Your task to perform on an android device: Show the shopping cart on newegg. Add "dell xps" to the cart on newegg, then select checkout. Image 0: 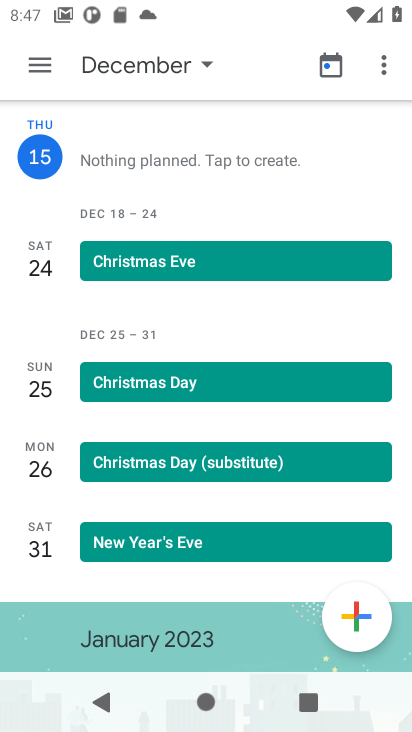
Step 0: press home button
Your task to perform on an android device: Show the shopping cart on newegg. Add "dell xps" to the cart on newegg, then select checkout. Image 1: 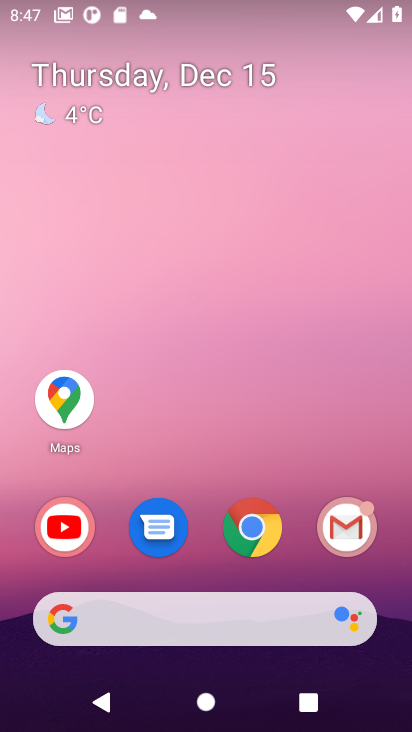
Step 1: click (256, 521)
Your task to perform on an android device: Show the shopping cart on newegg. Add "dell xps" to the cart on newegg, then select checkout. Image 2: 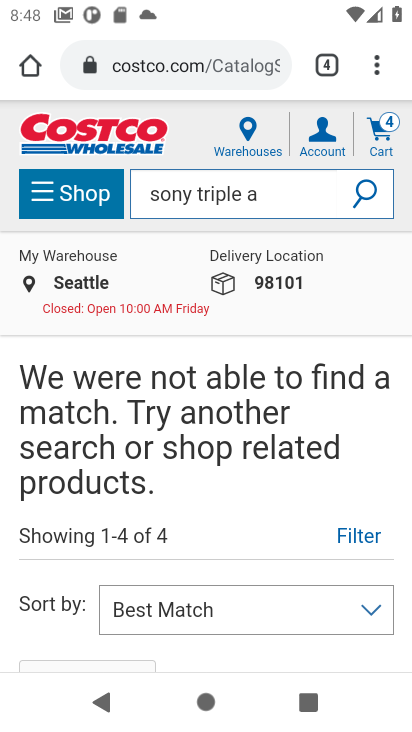
Step 2: click (170, 55)
Your task to perform on an android device: Show the shopping cart on newegg. Add "dell xps" to the cart on newegg, then select checkout. Image 3: 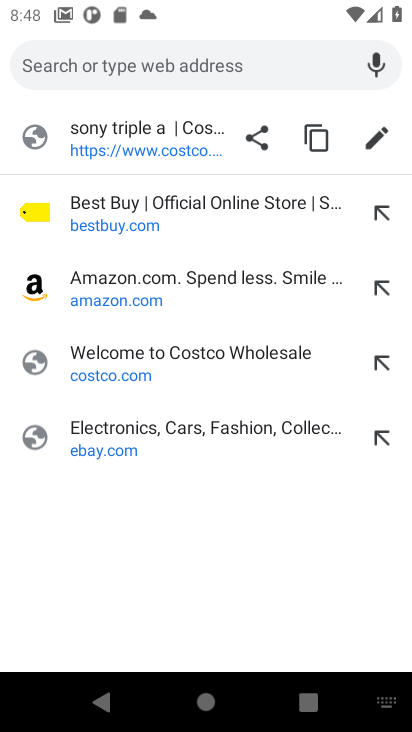
Step 3: type "newegg"
Your task to perform on an android device: Show the shopping cart on newegg. Add "dell xps" to the cart on newegg, then select checkout. Image 4: 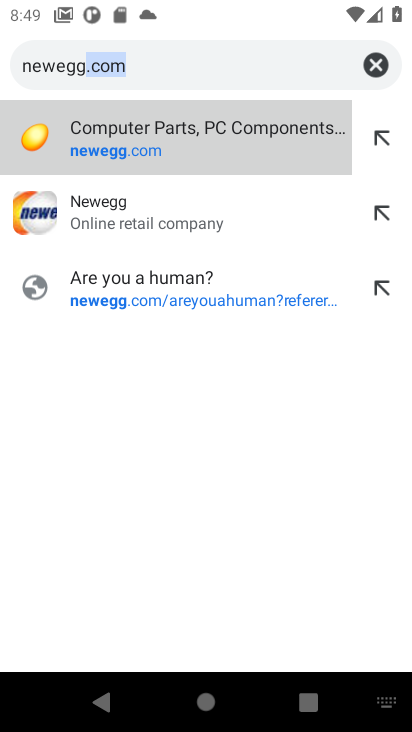
Step 4: click (146, 137)
Your task to perform on an android device: Show the shopping cart on newegg. Add "dell xps" to the cart on newegg, then select checkout. Image 5: 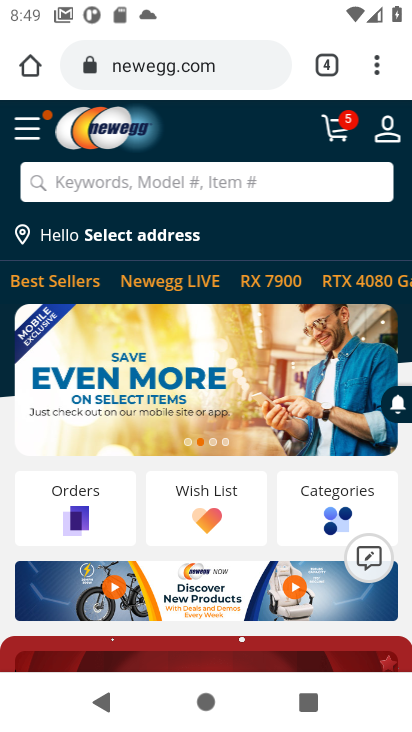
Step 5: click (107, 188)
Your task to perform on an android device: Show the shopping cart on newegg. Add "dell xps" to the cart on newegg, then select checkout. Image 6: 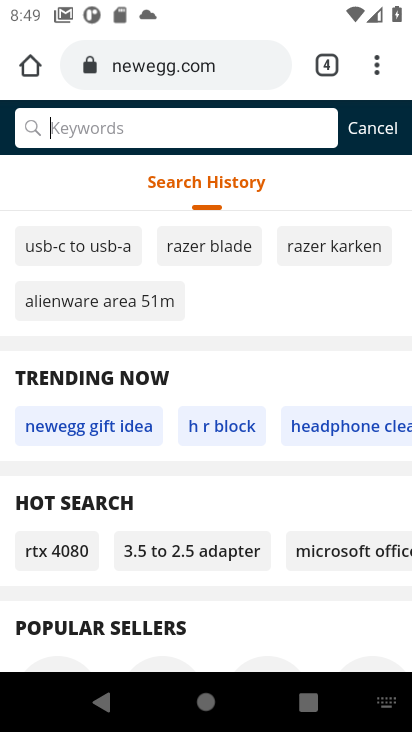
Step 6: type "dell xps"
Your task to perform on an android device: Show the shopping cart on newegg. Add "dell xps" to the cart on newegg, then select checkout. Image 7: 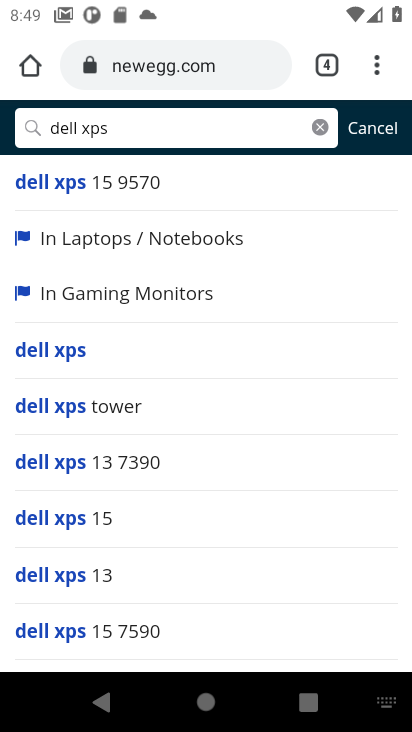
Step 7: click (123, 190)
Your task to perform on an android device: Show the shopping cart on newegg. Add "dell xps" to the cart on newegg, then select checkout. Image 8: 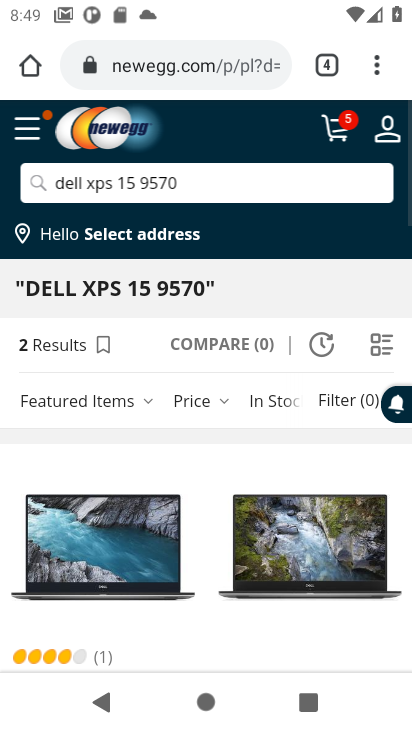
Step 8: click (138, 585)
Your task to perform on an android device: Show the shopping cart on newegg. Add "dell xps" to the cart on newegg, then select checkout. Image 9: 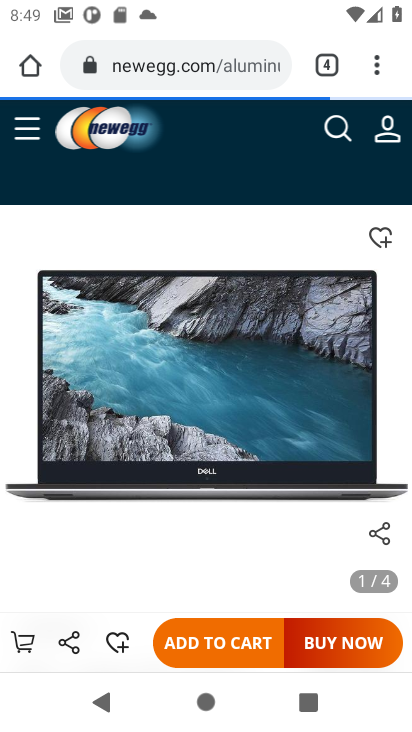
Step 9: click (206, 633)
Your task to perform on an android device: Show the shopping cart on newegg. Add "dell xps" to the cart on newegg, then select checkout. Image 10: 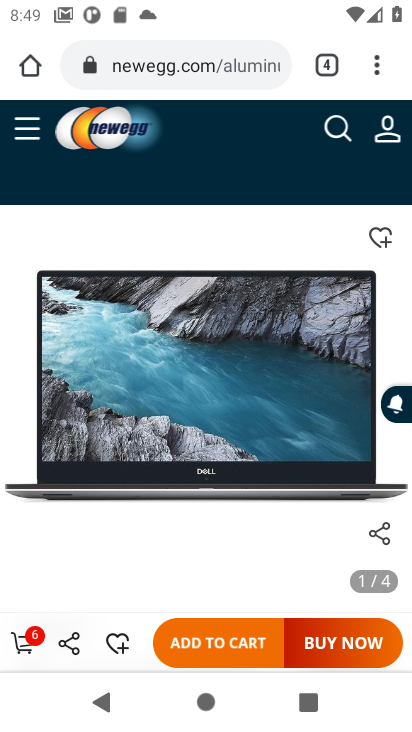
Step 10: task complete